Your task to perform on an android device: Open the web browser Image 0: 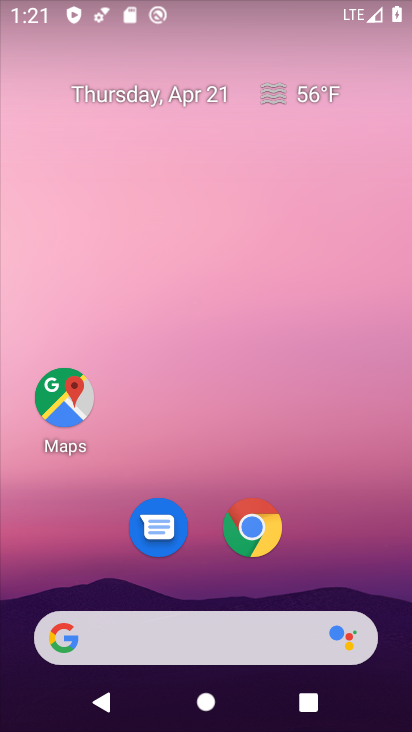
Step 0: drag from (209, 492) to (270, 170)
Your task to perform on an android device: Open the web browser Image 1: 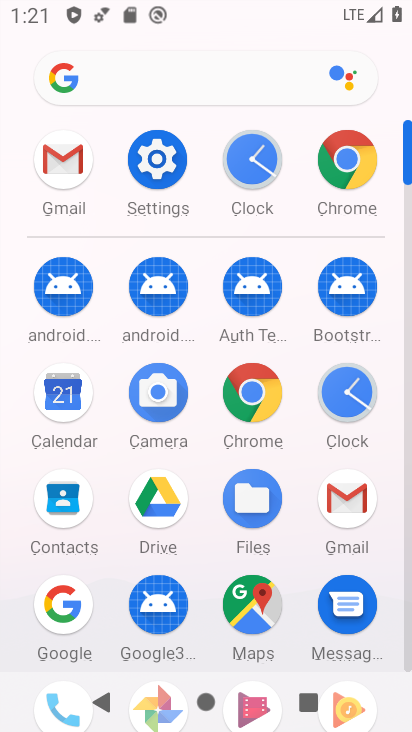
Step 1: click (347, 170)
Your task to perform on an android device: Open the web browser Image 2: 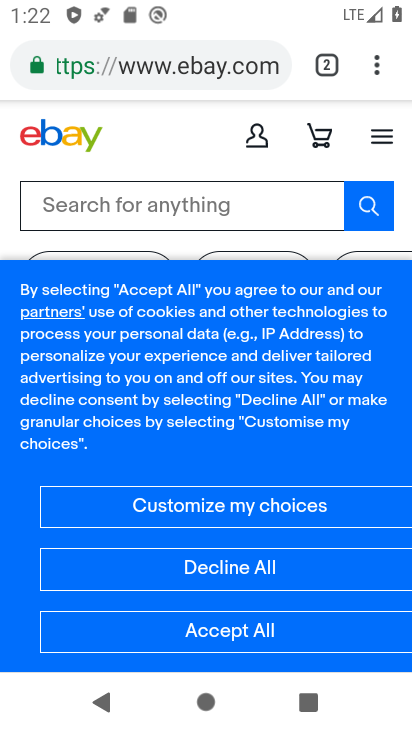
Step 2: task complete